Your task to perform on an android device: open a bookmark in the chrome app Image 0: 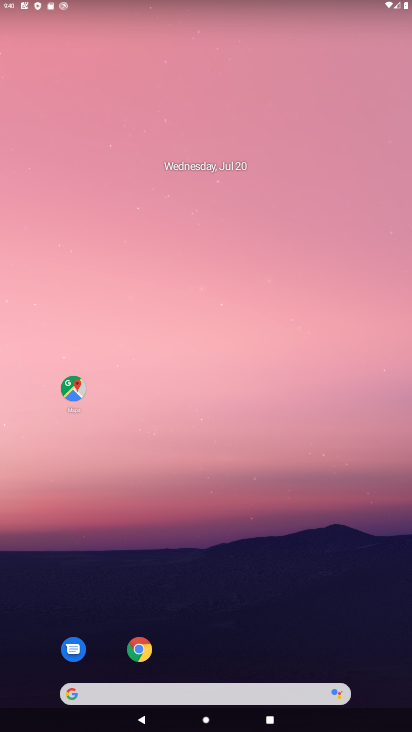
Step 0: click (144, 641)
Your task to perform on an android device: open a bookmark in the chrome app Image 1: 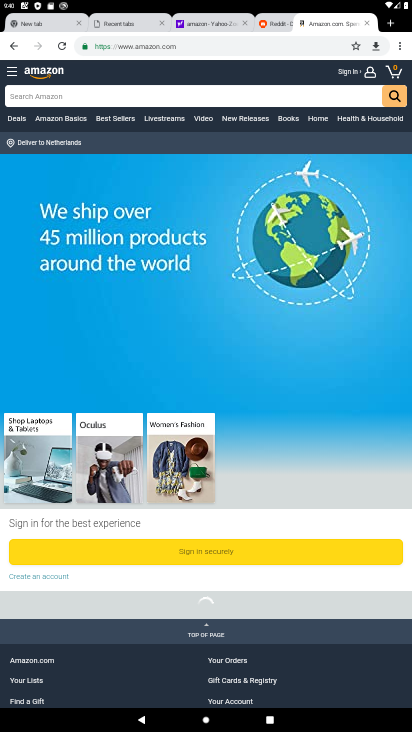
Step 1: click (396, 41)
Your task to perform on an android device: open a bookmark in the chrome app Image 2: 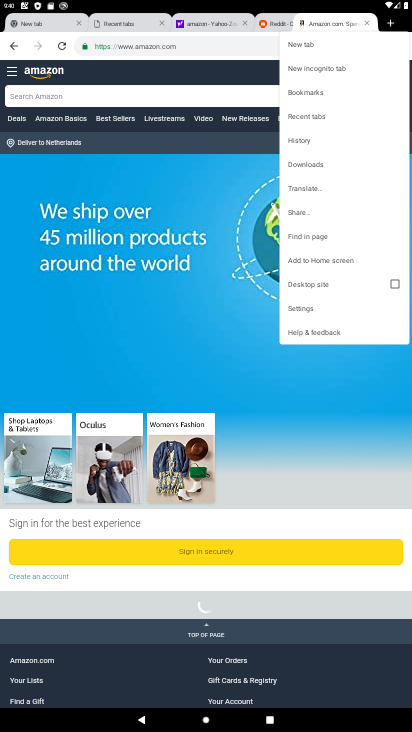
Step 2: click (314, 96)
Your task to perform on an android device: open a bookmark in the chrome app Image 3: 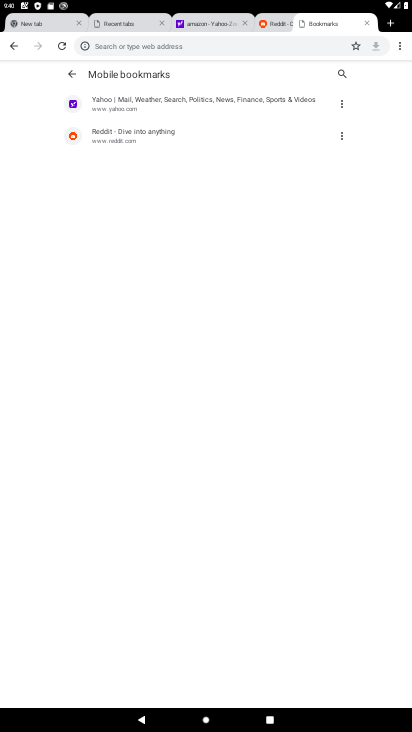
Step 3: click (149, 112)
Your task to perform on an android device: open a bookmark in the chrome app Image 4: 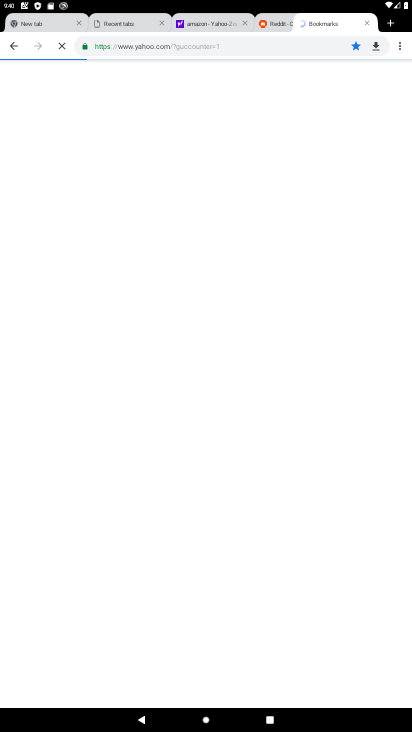
Step 4: task complete